Your task to perform on an android device: Show the shopping cart on walmart.com. Add "apple airpods pro" to the cart on walmart.com Image 0: 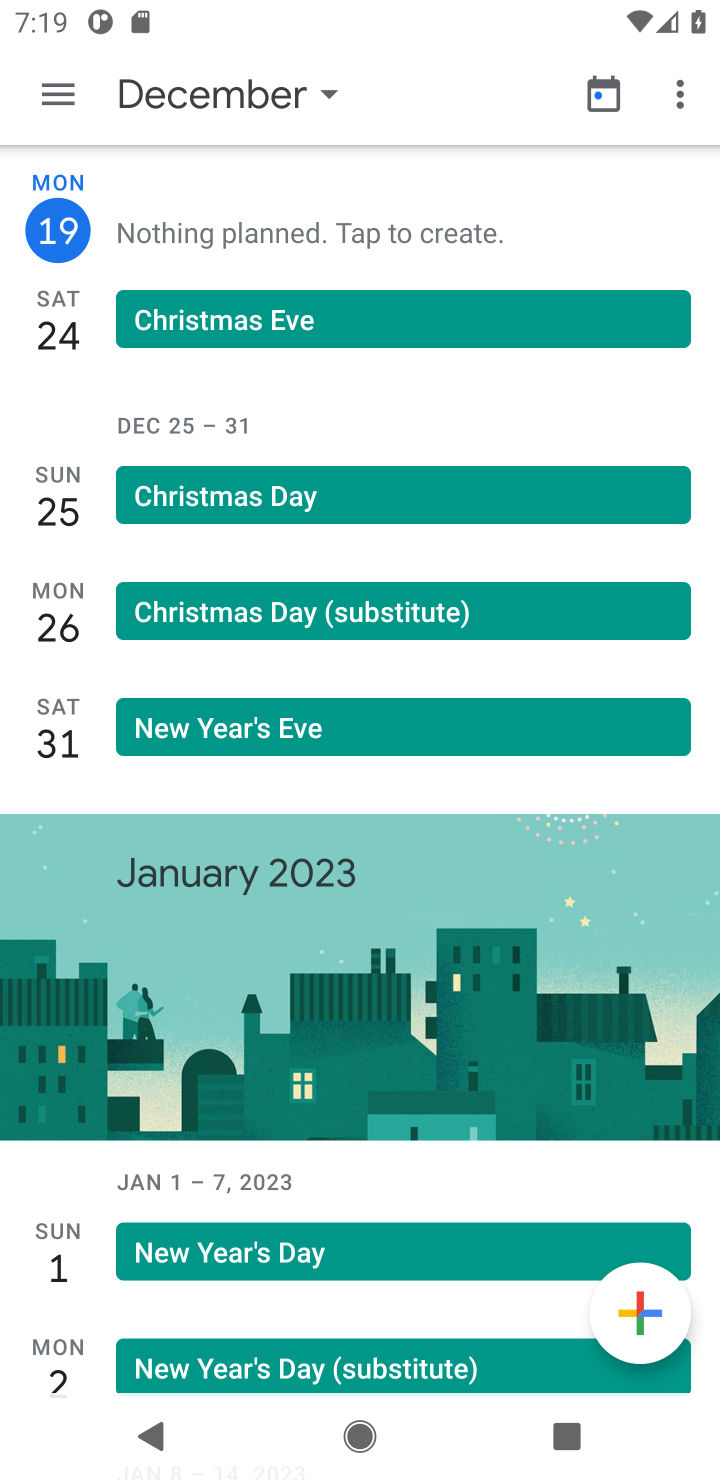
Step 0: press home button
Your task to perform on an android device: Show the shopping cart on walmart.com. Add "apple airpods pro" to the cart on walmart.com Image 1: 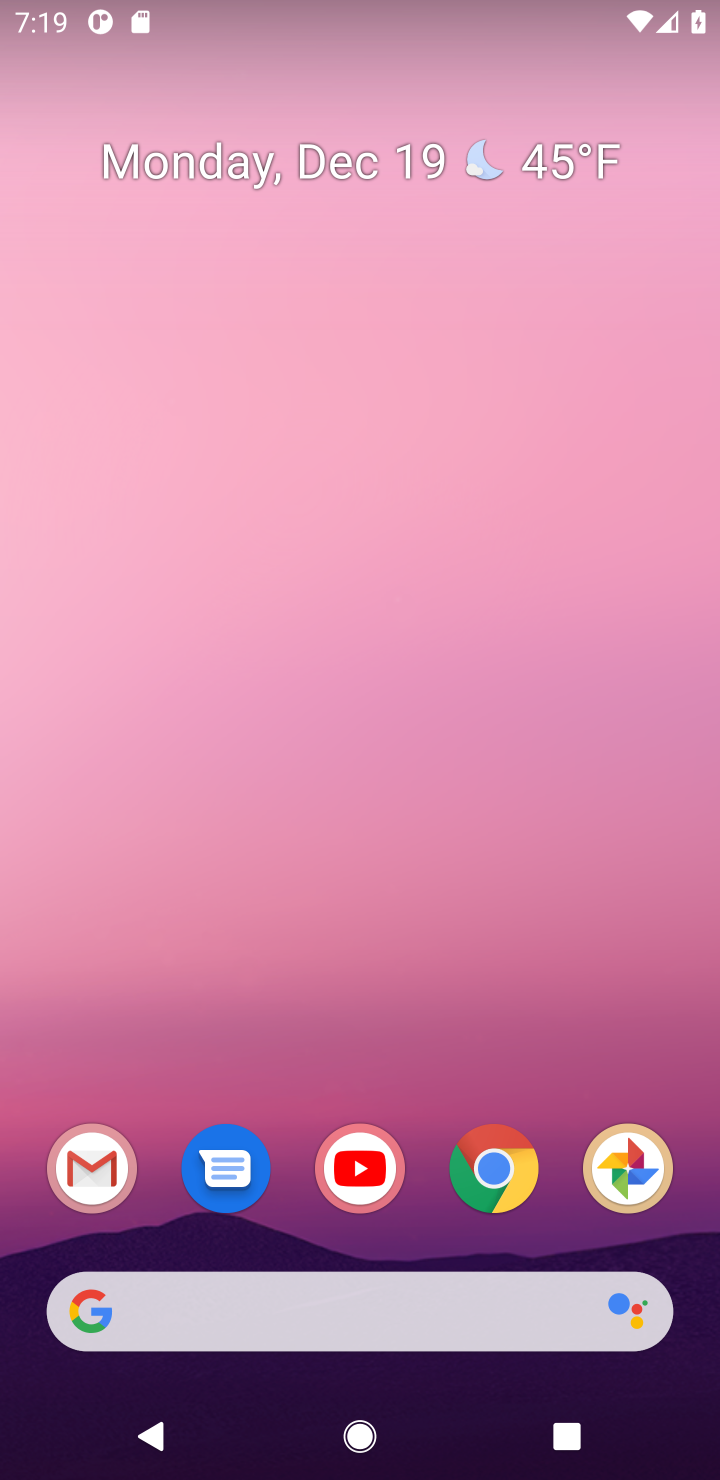
Step 1: click (495, 1175)
Your task to perform on an android device: Show the shopping cart on walmart.com. Add "apple airpods pro" to the cart on walmart.com Image 2: 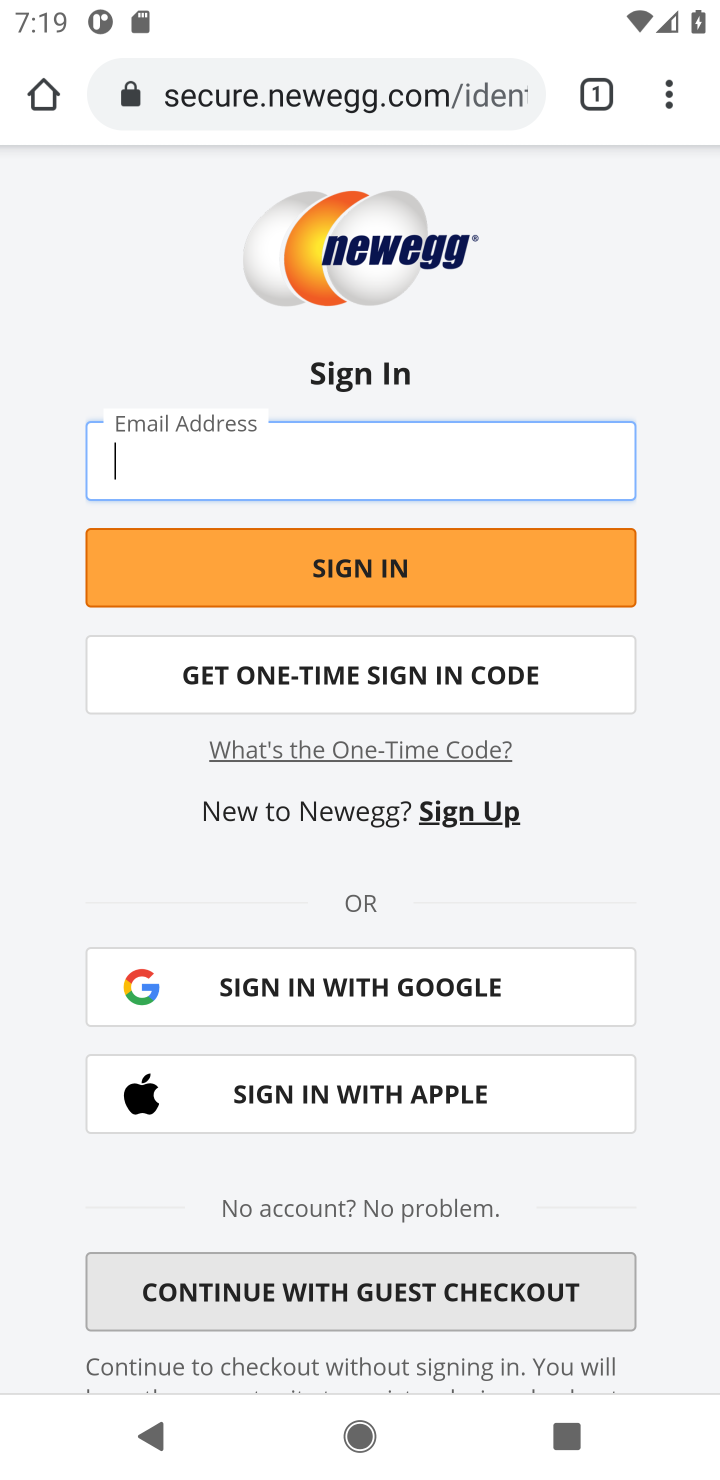
Step 2: click (320, 103)
Your task to perform on an android device: Show the shopping cart on walmart.com. Add "apple airpods pro" to the cart on walmart.com Image 3: 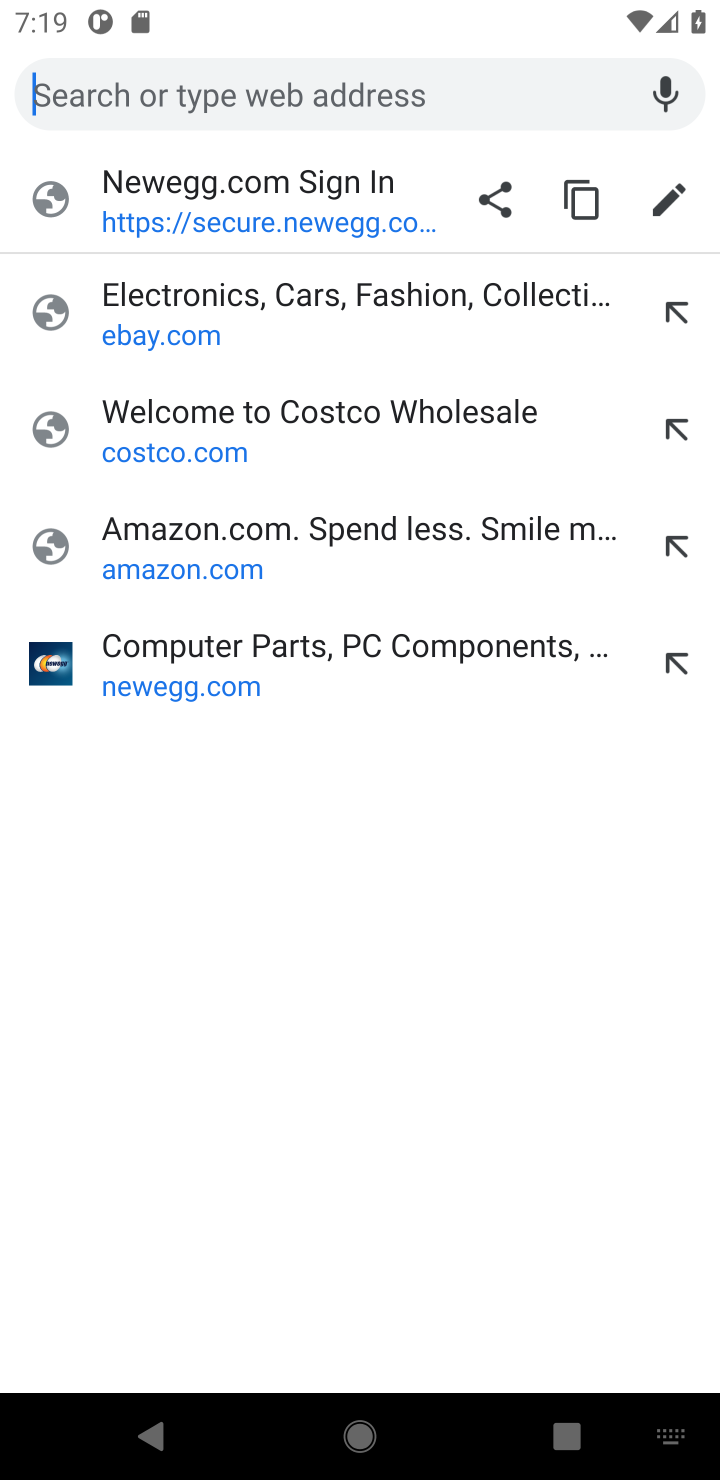
Step 3: type "walmart.com"
Your task to perform on an android device: Show the shopping cart on walmart.com. Add "apple airpods pro" to the cart on walmart.com Image 4: 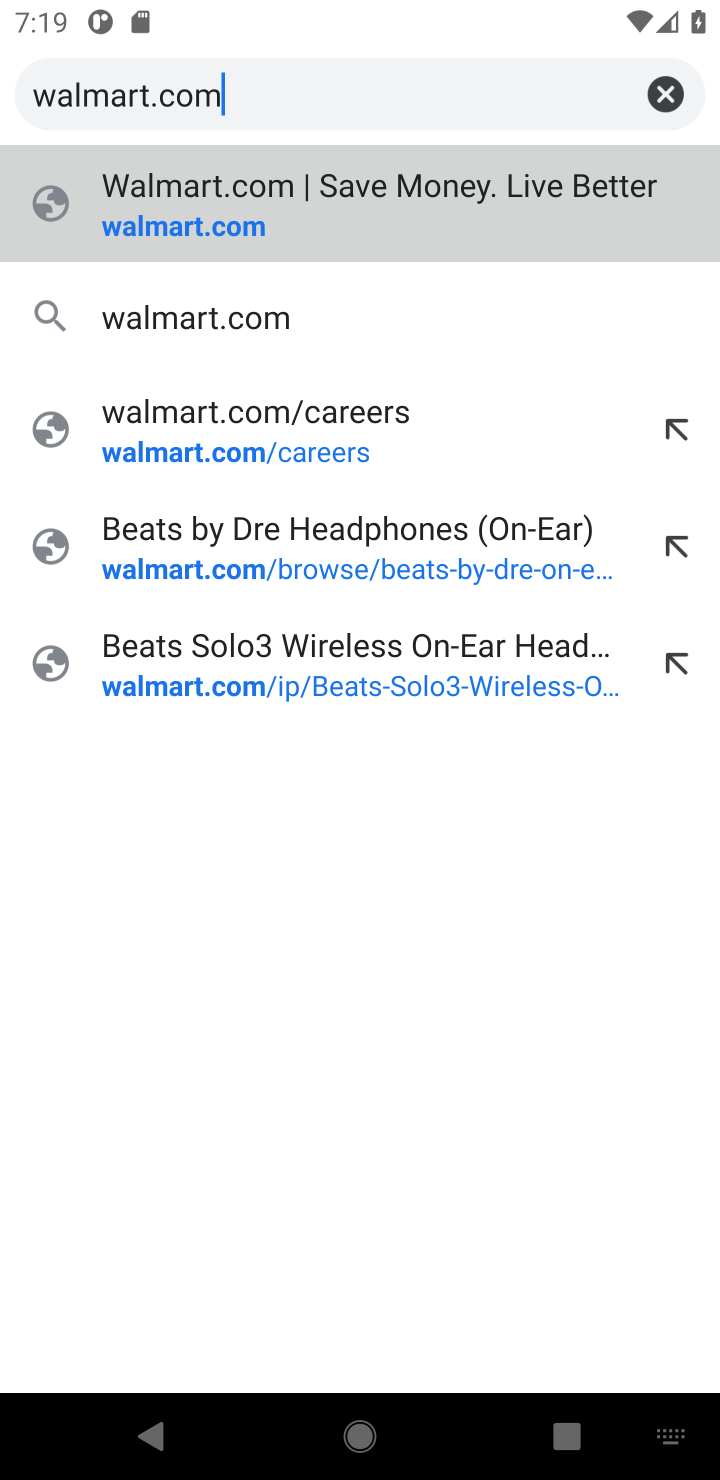
Step 4: click (177, 240)
Your task to perform on an android device: Show the shopping cart on walmart.com. Add "apple airpods pro" to the cart on walmart.com Image 5: 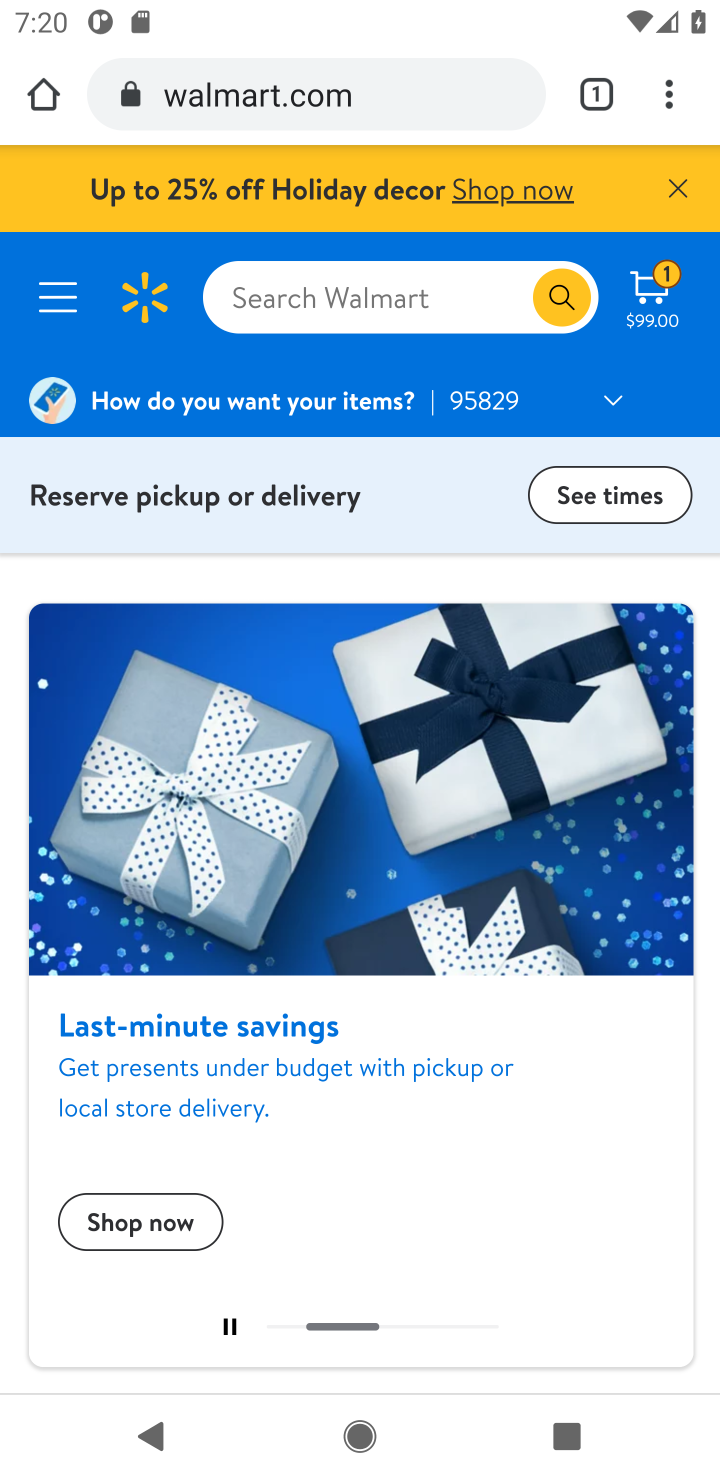
Step 5: click (656, 315)
Your task to perform on an android device: Show the shopping cart on walmart.com. Add "apple airpods pro" to the cart on walmart.com Image 6: 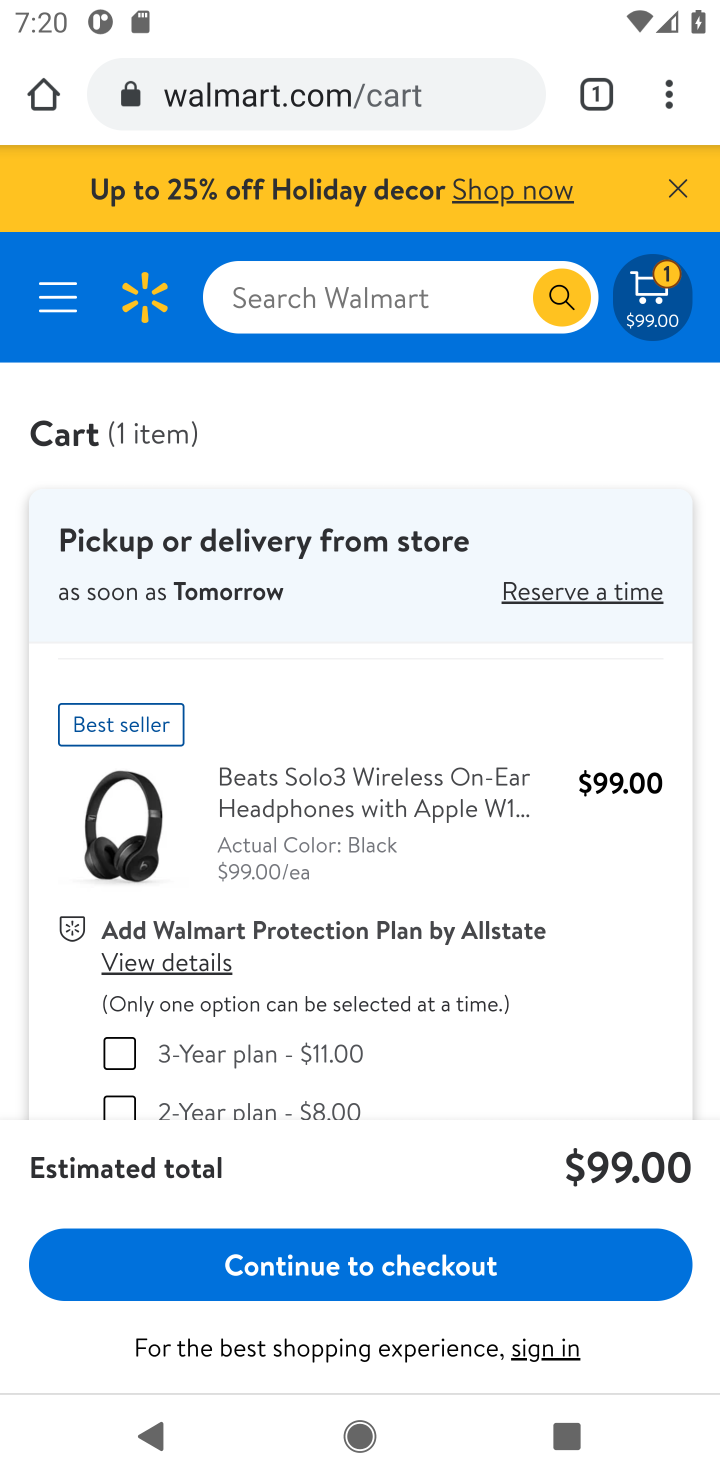
Step 6: click (258, 306)
Your task to perform on an android device: Show the shopping cart on walmart.com. Add "apple airpods pro" to the cart on walmart.com Image 7: 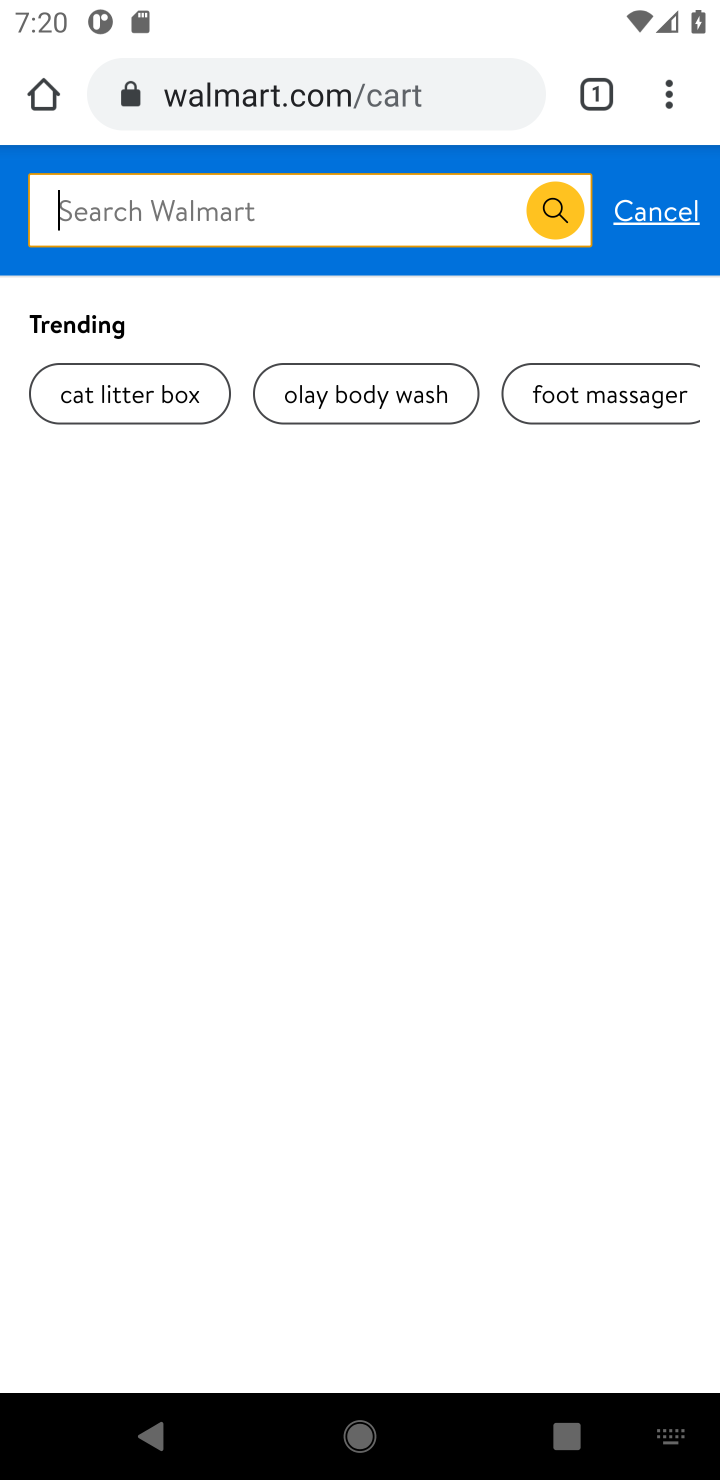
Step 7: type "apple airpods pro"
Your task to perform on an android device: Show the shopping cart on walmart.com. Add "apple airpods pro" to the cart on walmart.com Image 8: 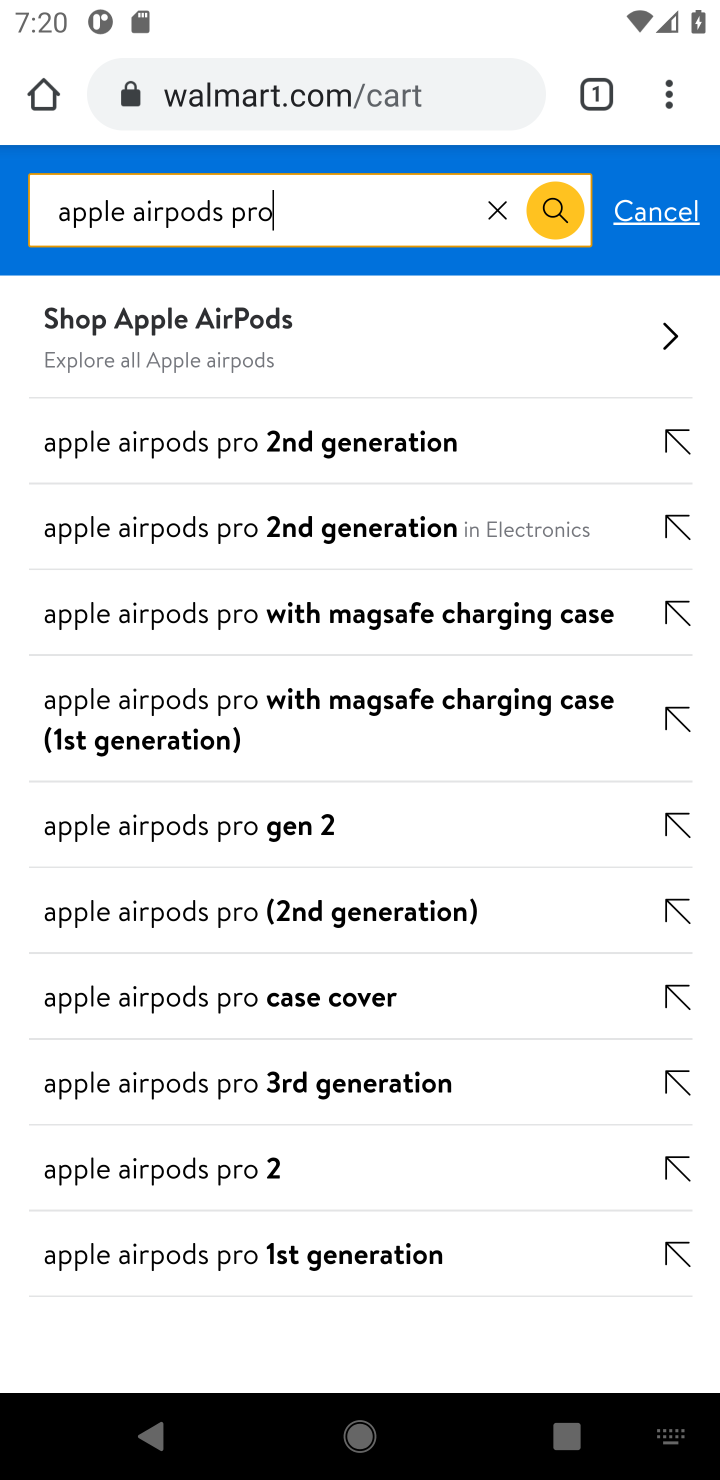
Step 8: click (541, 215)
Your task to perform on an android device: Show the shopping cart on walmart.com. Add "apple airpods pro" to the cart on walmart.com Image 9: 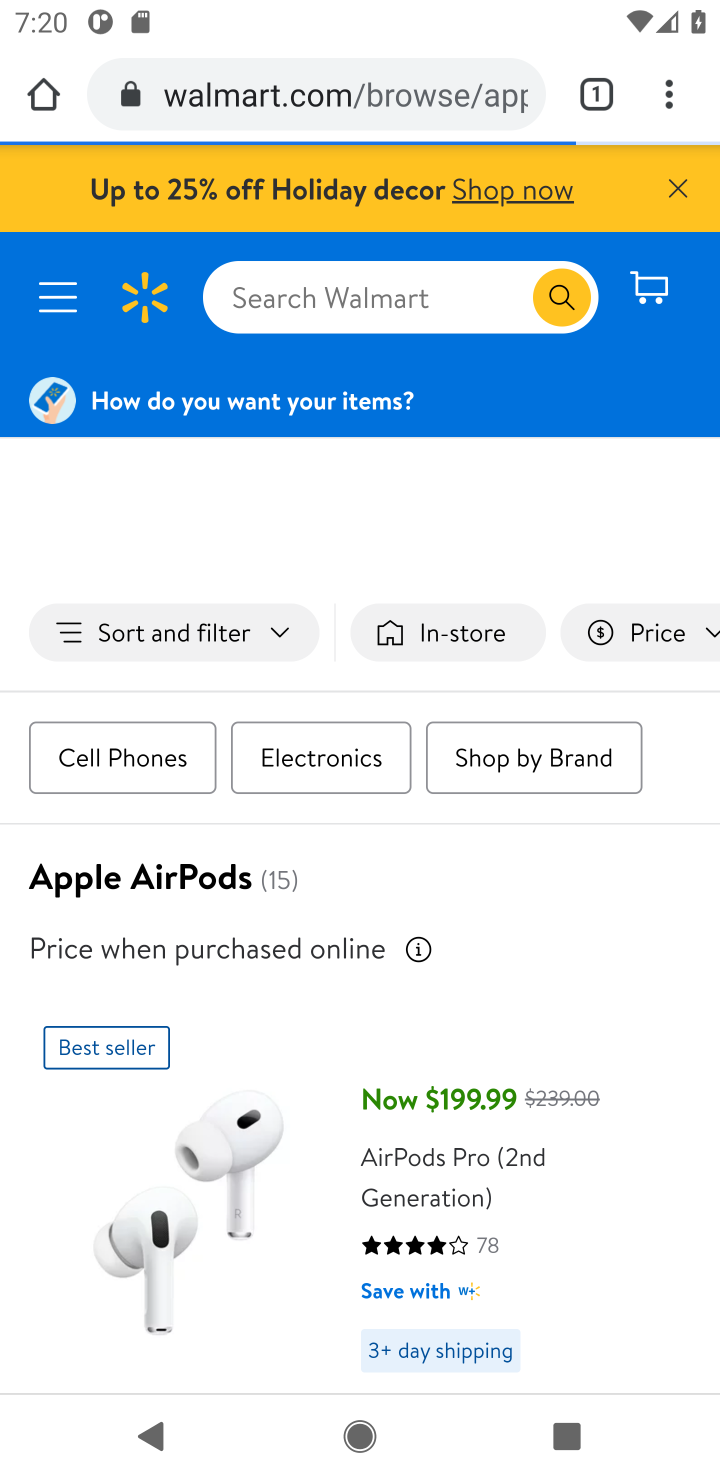
Step 9: drag from (322, 979) to (407, 472)
Your task to perform on an android device: Show the shopping cart on walmart.com. Add "apple airpods pro" to the cart on walmart.com Image 10: 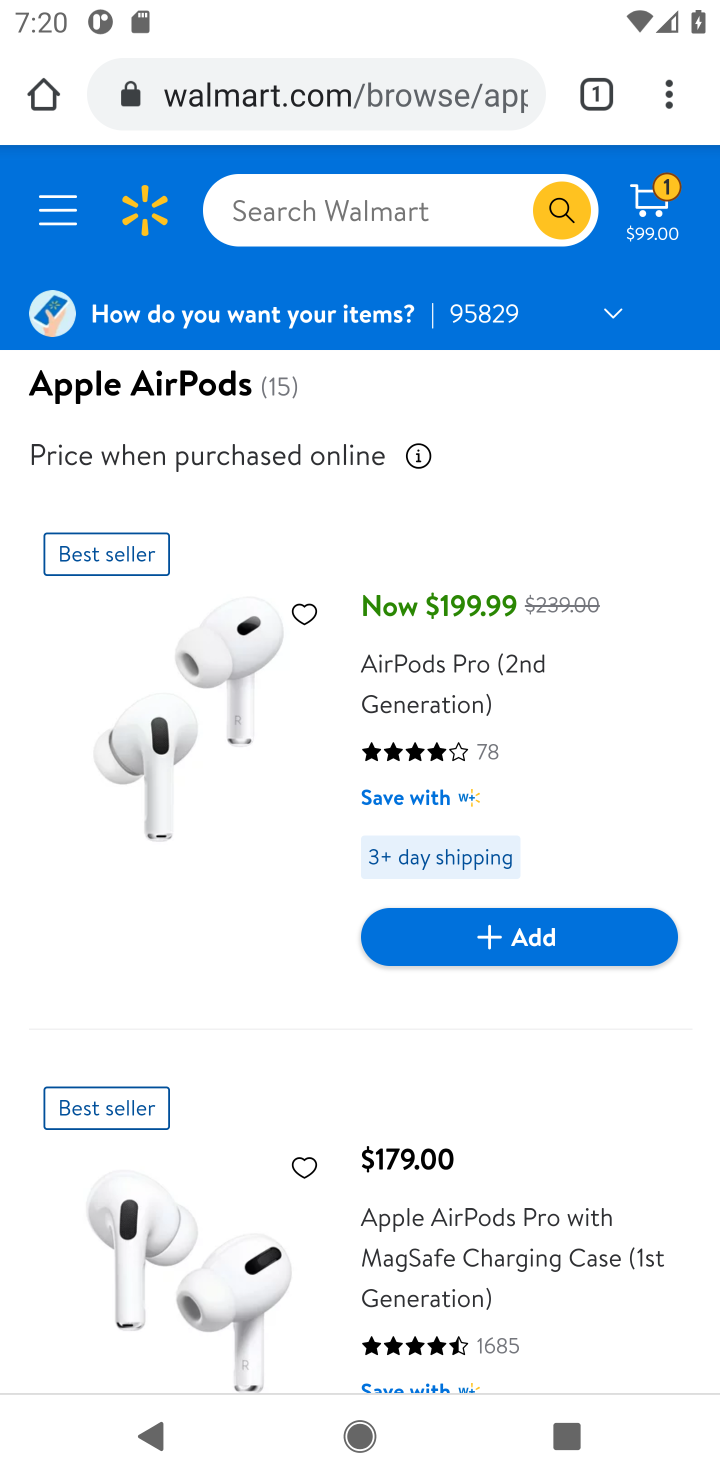
Step 10: click (490, 964)
Your task to perform on an android device: Show the shopping cart on walmart.com. Add "apple airpods pro" to the cart on walmart.com Image 11: 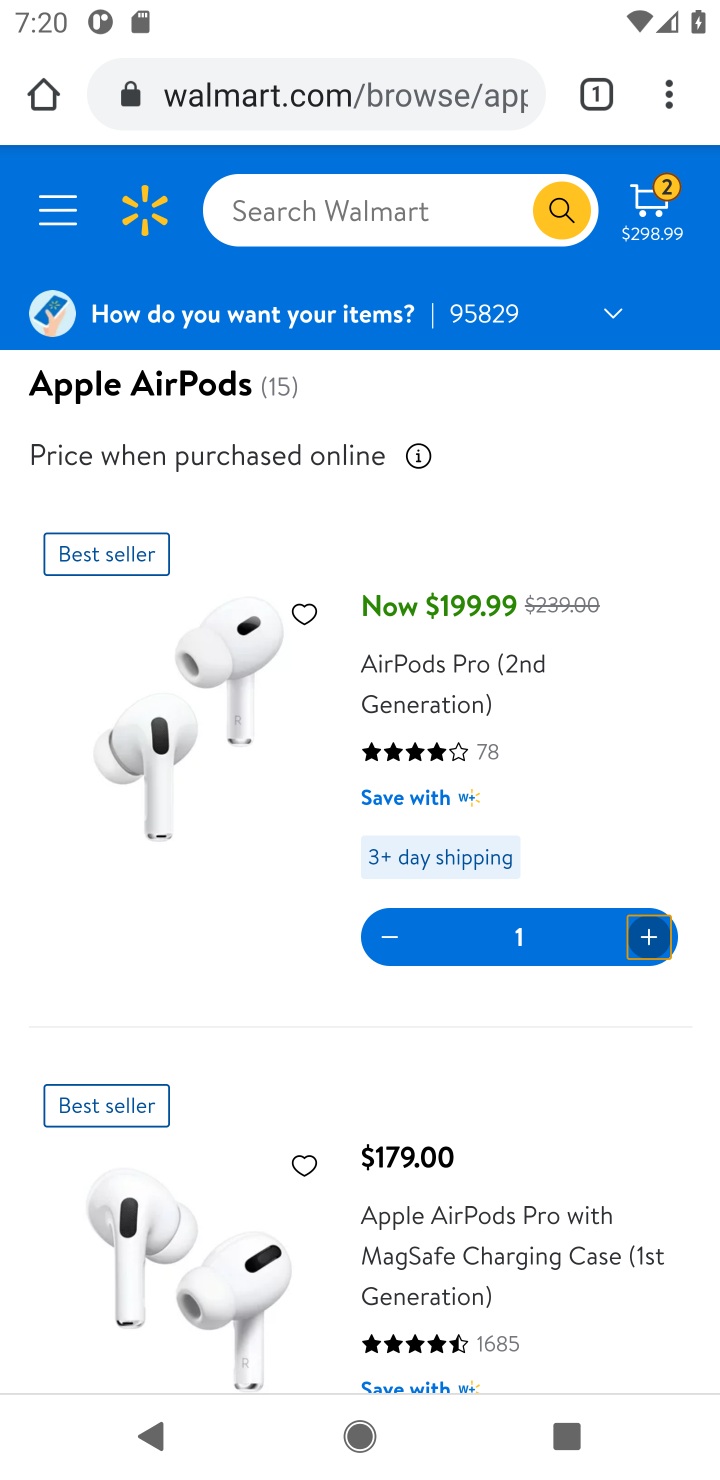
Step 11: task complete